Your task to perform on an android device: Open Chrome and go to the settings page Image 0: 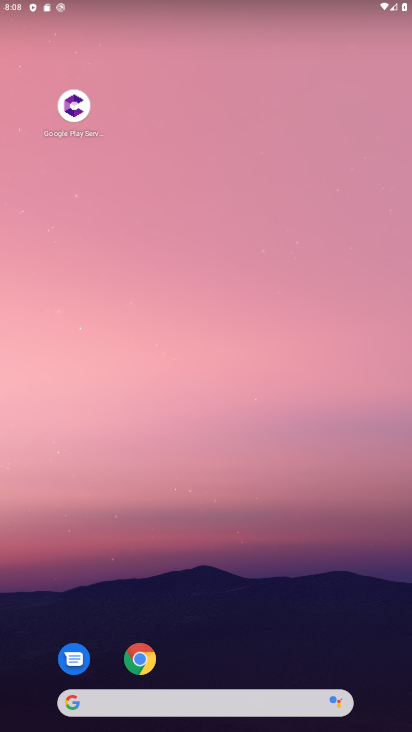
Step 0: click (132, 660)
Your task to perform on an android device: Open Chrome and go to the settings page Image 1: 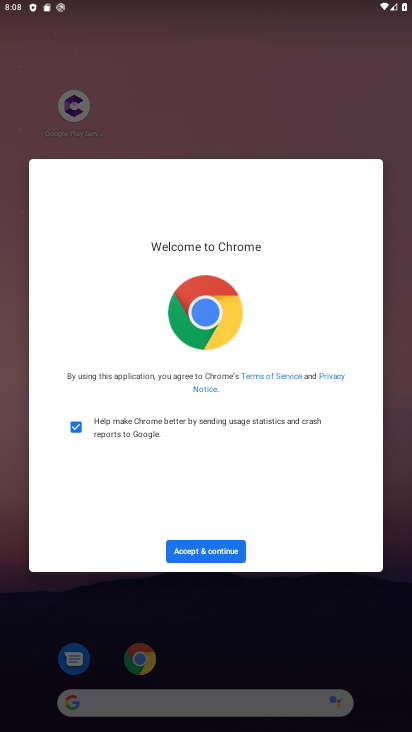
Step 1: click (210, 550)
Your task to perform on an android device: Open Chrome and go to the settings page Image 2: 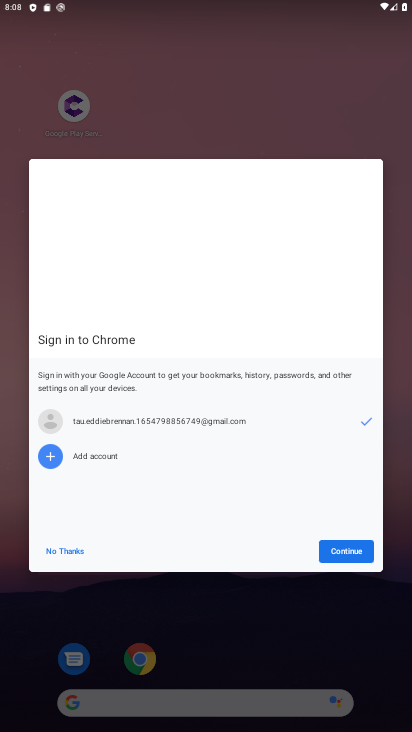
Step 2: click (347, 550)
Your task to perform on an android device: Open Chrome and go to the settings page Image 3: 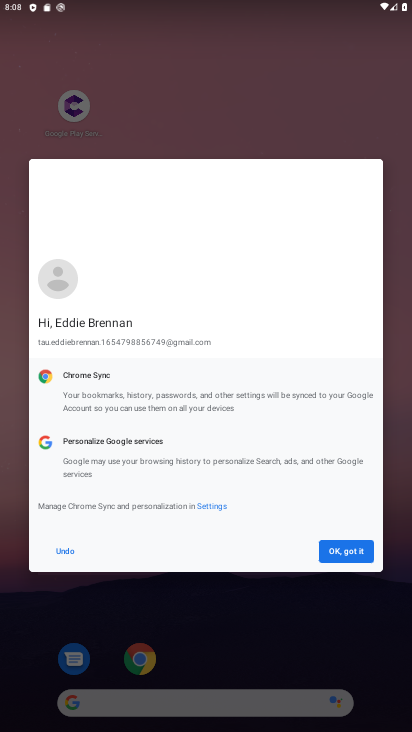
Step 3: click (347, 550)
Your task to perform on an android device: Open Chrome and go to the settings page Image 4: 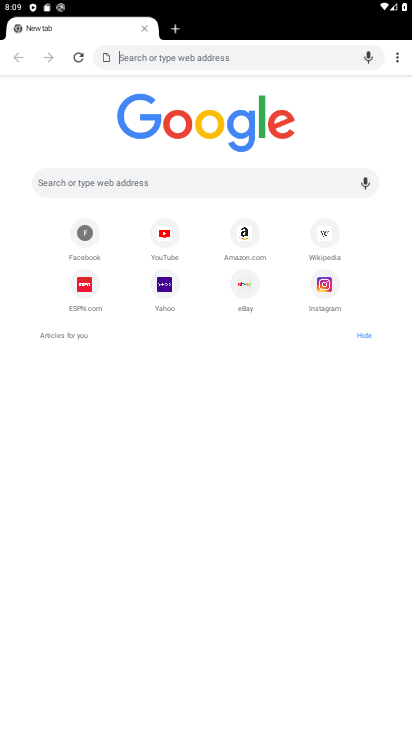
Step 4: click (395, 63)
Your task to perform on an android device: Open Chrome and go to the settings page Image 5: 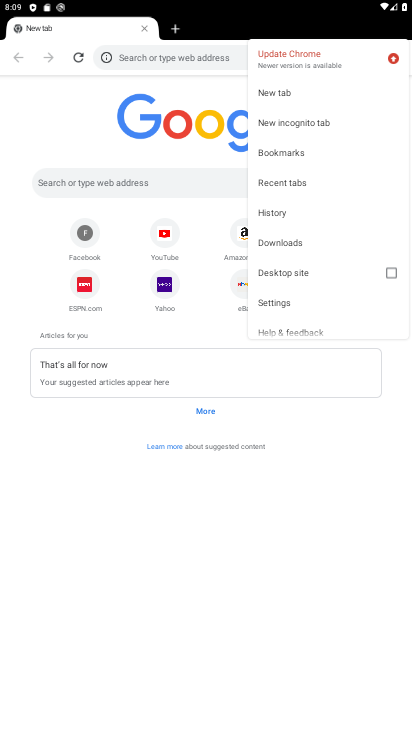
Step 5: click (284, 302)
Your task to perform on an android device: Open Chrome and go to the settings page Image 6: 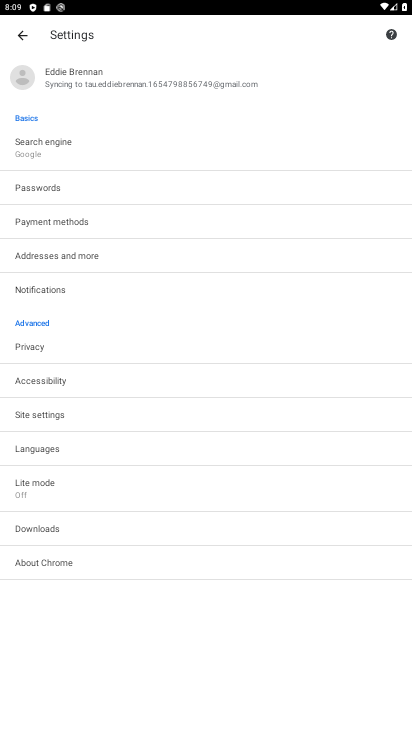
Step 6: task complete